Your task to perform on an android device: Open Maps and search for coffee Image 0: 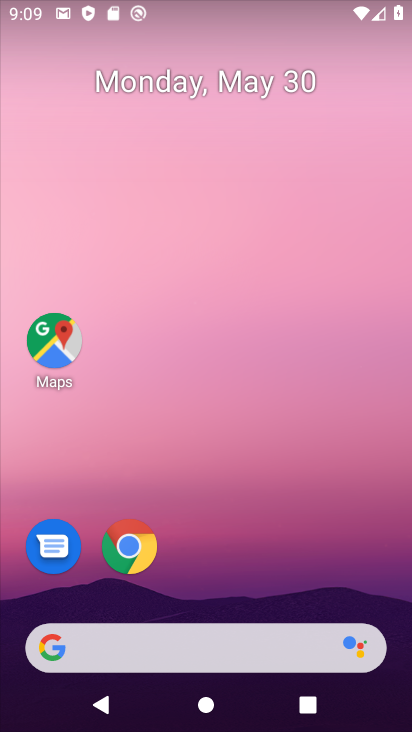
Step 0: drag from (386, 590) to (281, 21)
Your task to perform on an android device: Open Maps and search for coffee Image 1: 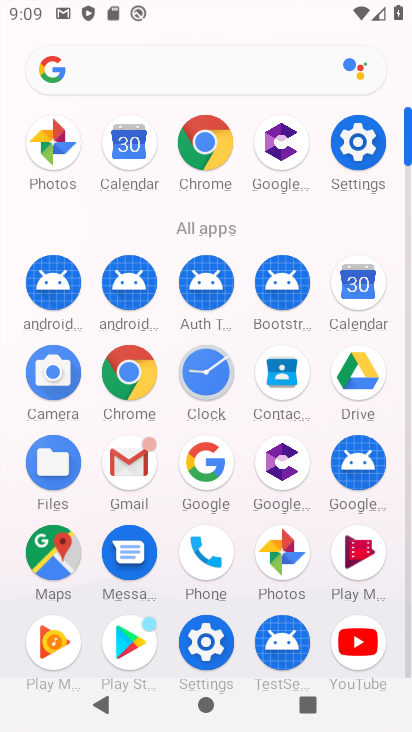
Step 1: click (67, 554)
Your task to perform on an android device: Open Maps and search for coffee Image 2: 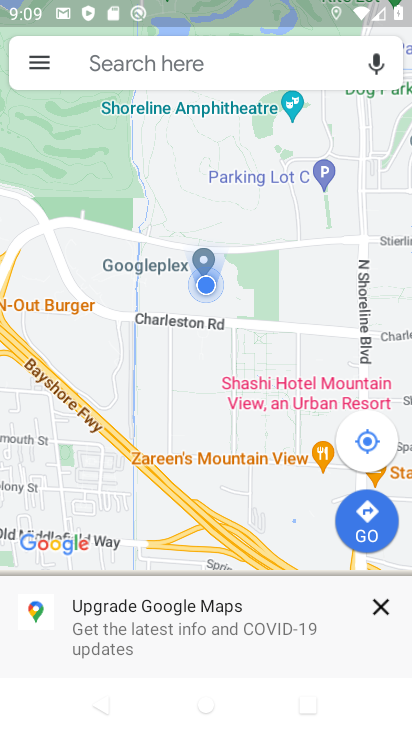
Step 2: click (188, 70)
Your task to perform on an android device: Open Maps and search for coffee Image 3: 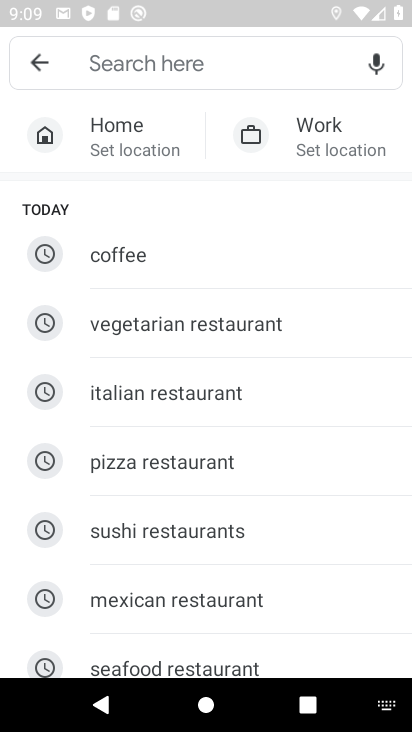
Step 3: click (131, 253)
Your task to perform on an android device: Open Maps and search for coffee Image 4: 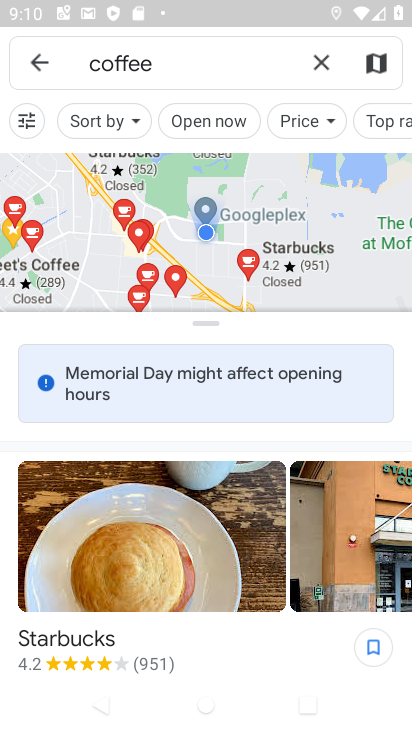
Step 4: task complete